Your task to perform on an android device: find snoozed emails in the gmail app Image 0: 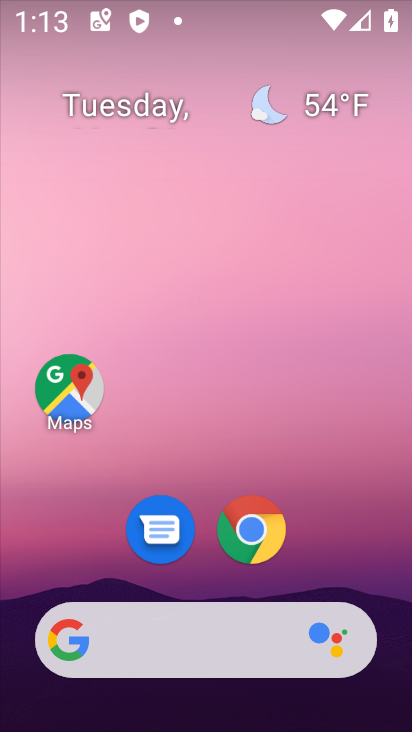
Step 0: drag from (334, 545) to (266, 30)
Your task to perform on an android device: find snoozed emails in the gmail app Image 1: 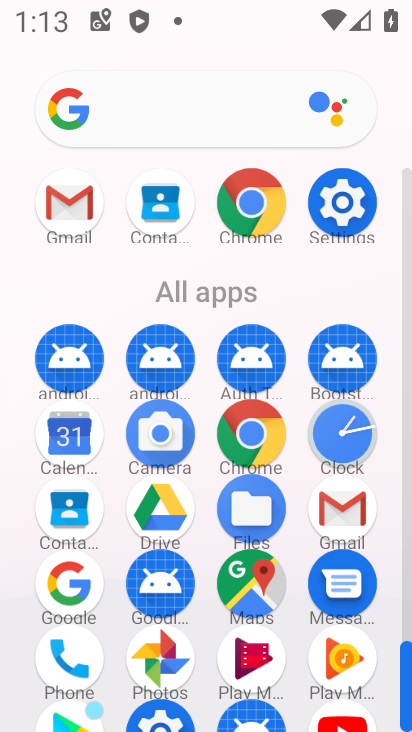
Step 1: click (67, 201)
Your task to perform on an android device: find snoozed emails in the gmail app Image 2: 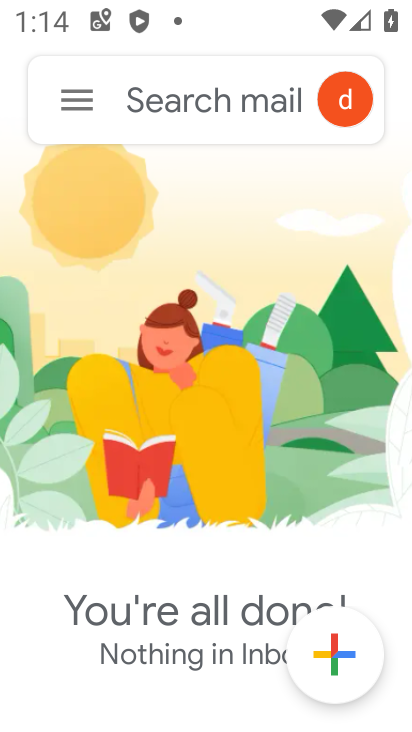
Step 2: click (82, 106)
Your task to perform on an android device: find snoozed emails in the gmail app Image 3: 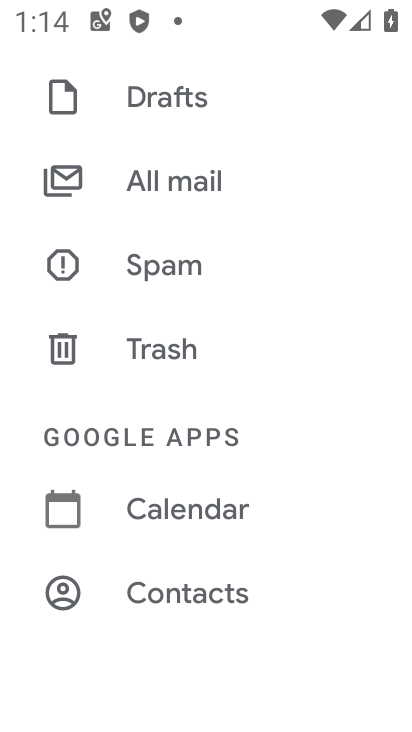
Step 3: click (200, 210)
Your task to perform on an android device: find snoozed emails in the gmail app Image 4: 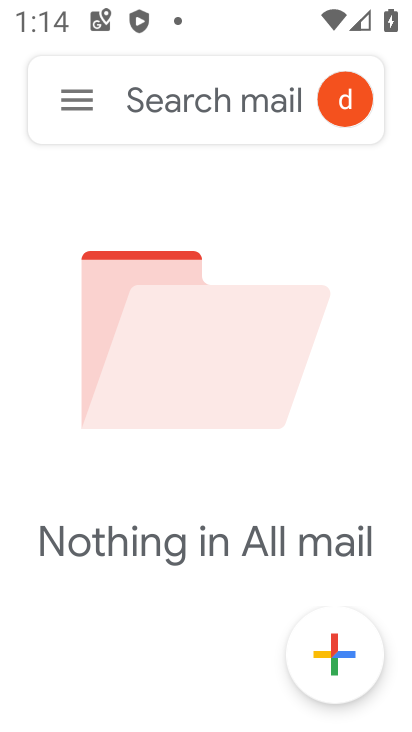
Step 4: click (89, 105)
Your task to perform on an android device: find snoozed emails in the gmail app Image 5: 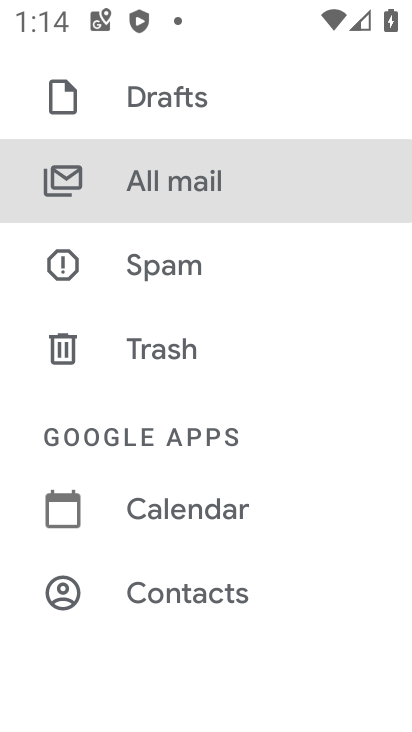
Step 5: drag from (228, 222) to (215, 380)
Your task to perform on an android device: find snoozed emails in the gmail app Image 6: 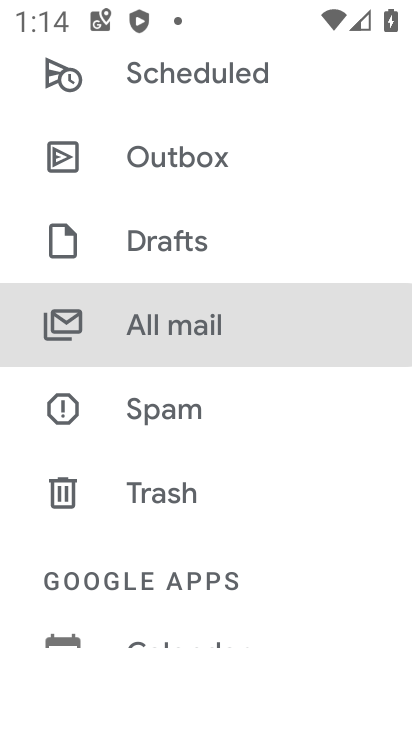
Step 6: drag from (247, 248) to (229, 367)
Your task to perform on an android device: find snoozed emails in the gmail app Image 7: 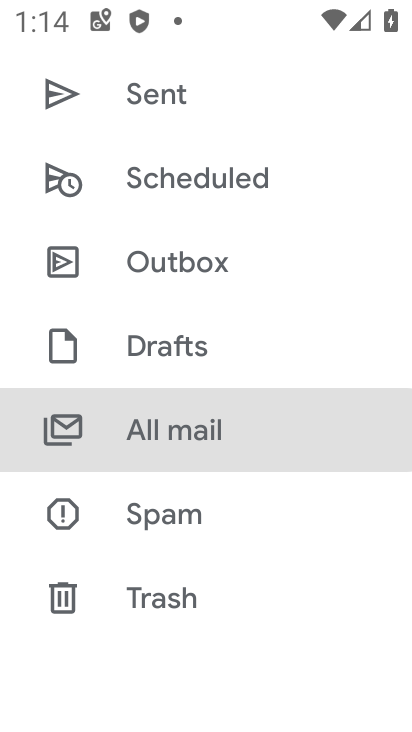
Step 7: drag from (239, 171) to (215, 290)
Your task to perform on an android device: find snoozed emails in the gmail app Image 8: 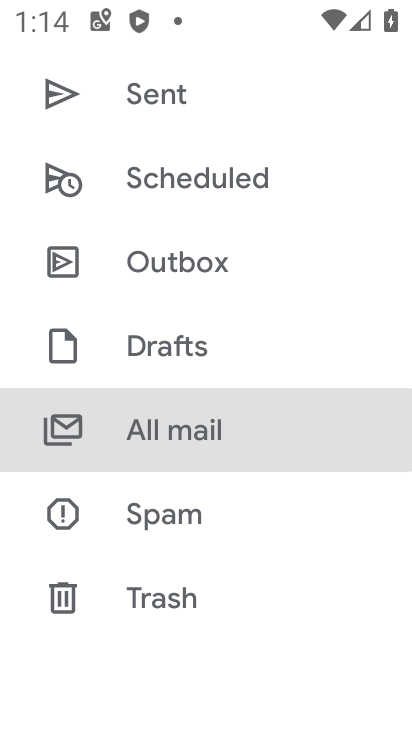
Step 8: drag from (189, 138) to (227, 282)
Your task to perform on an android device: find snoozed emails in the gmail app Image 9: 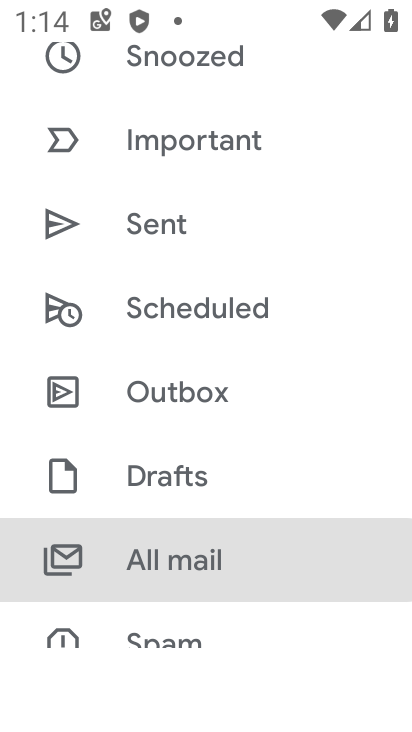
Step 9: drag from (218, 108) to (250, 250)
Your task to perform on an android device: find snoozed emails in the gmail app Image 10: 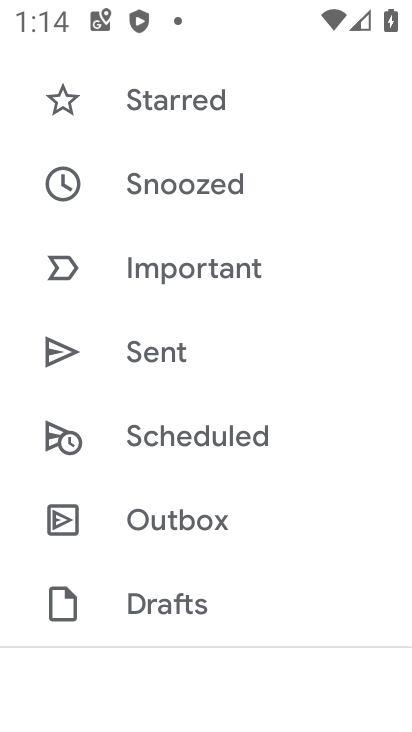
Step 10: drag from (222, 109) to (262, 251)
Your task to perform on an android device: find snoozed emails in the gmail app Image 11: 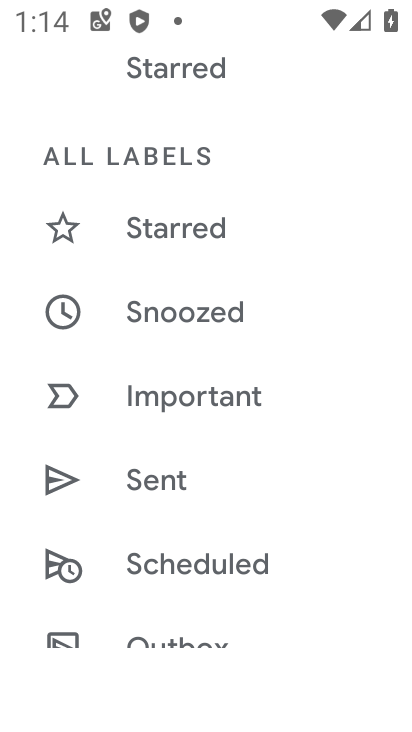
Step 11: click (230, 304)
Your task to perform on an android device: find snoozed emails in the gmail app Image 12: 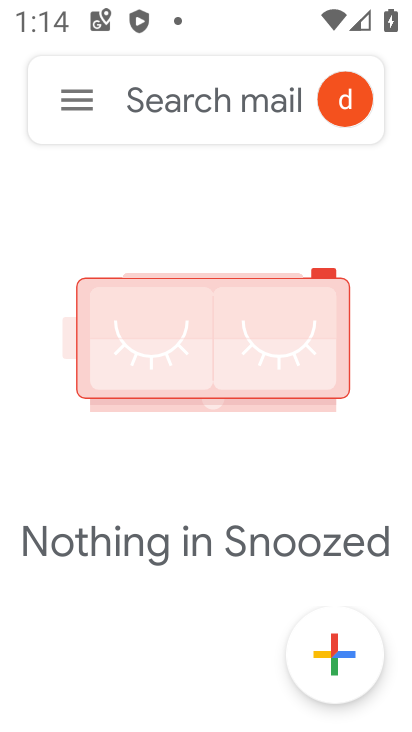
Step 12: click (86, 108)
Your task to perform on an android device: find snoozed emails in the gmail app Image 13: 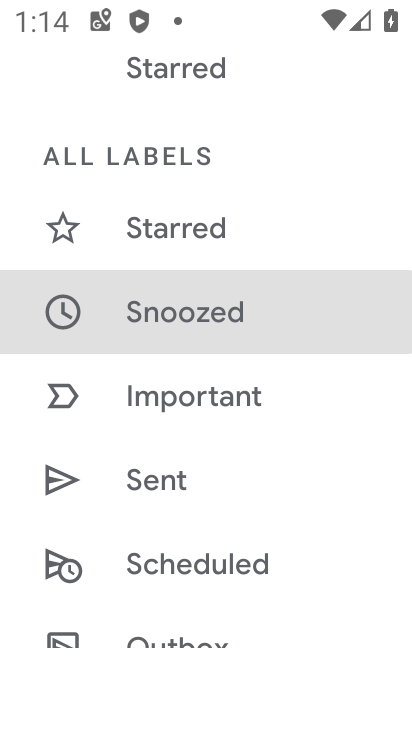
Step 13: task complete